Your task to perform on an android device: turn on the 24-hour format for clock Image 0: 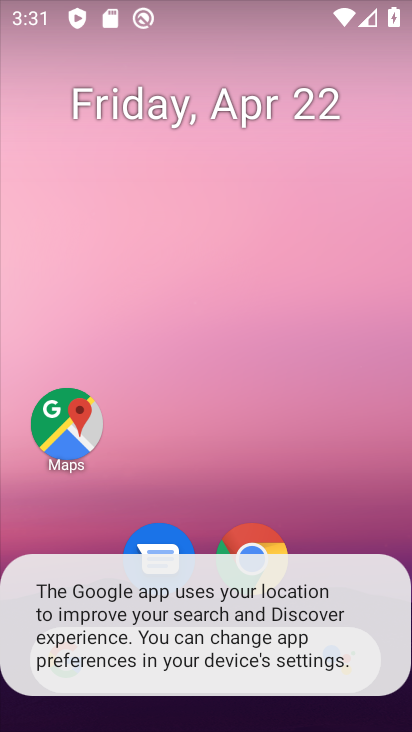
Step 0: drag from (220, 477) to (312, 39)
Your task to perform on an android device: turn on the 24-hour format for clock Image 1: 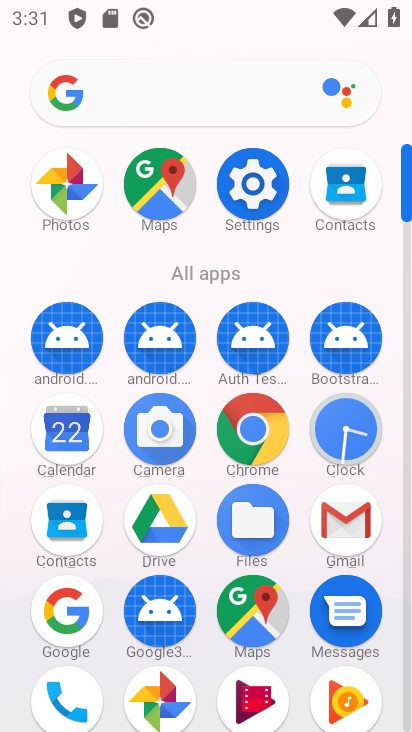
Step 1: click (360, 444)
Your task to perform on an android device: turn on the 24-hour format for clock Image 2: 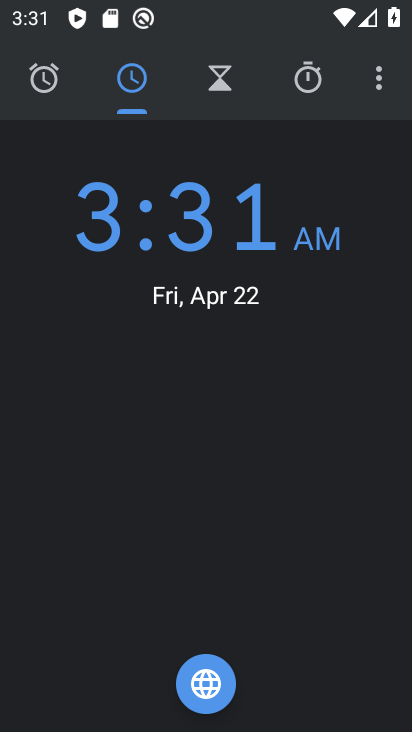
Step 2: click (378, 86)
Your task to perform on an android device: turn on the 24-hour format for clock Image 3: 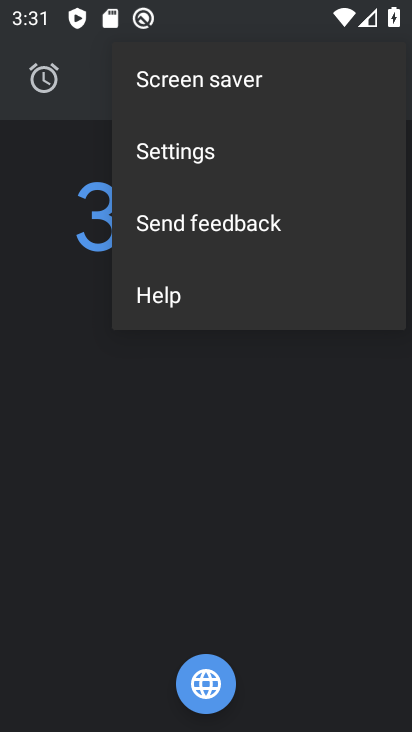
Step 3: click (274, 162)
Your task to perform on an android device: turn on the 24-hour format for clock Image 4: 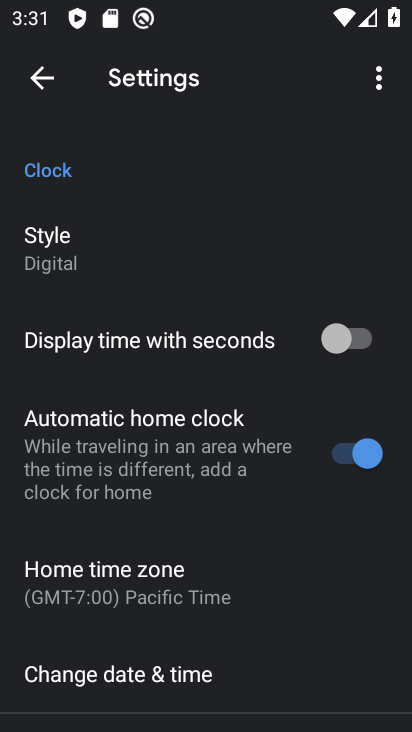
Step 4: click (191, 679)
Your task to perform on an android device: turn on the 24-hour format for clock Image 5: 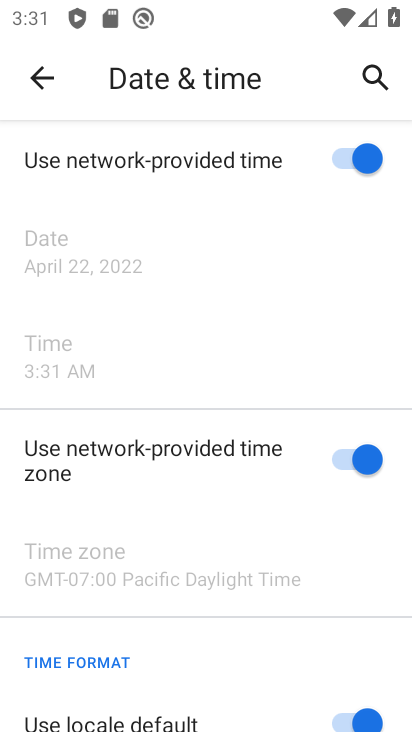
Step 5: drag from (208, 648) to (299, 226)
Your task to perform on an android device: turn on the 24-hour format for clock Image 6: 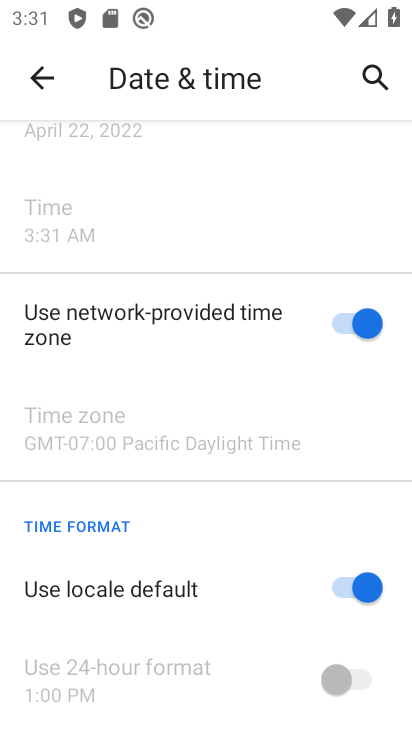
Step 6: click (340, 592)
Your task to perform on an android device: turn on the 24-hour format for clock Image 7: 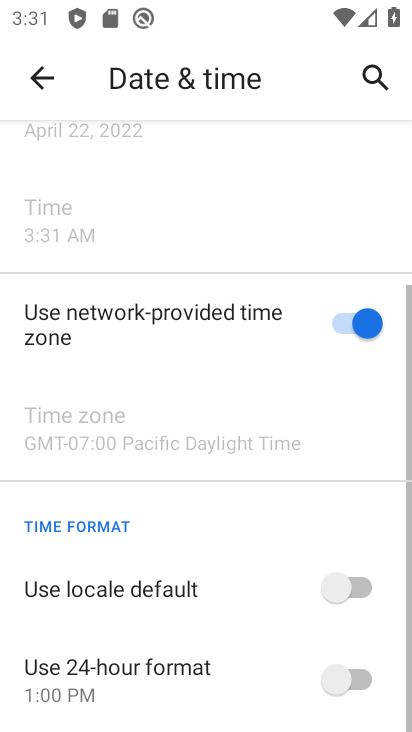
Step 7: click (368, 677)
Your task to perform on an android device: turn on the 24-hour format for clock Image 8: 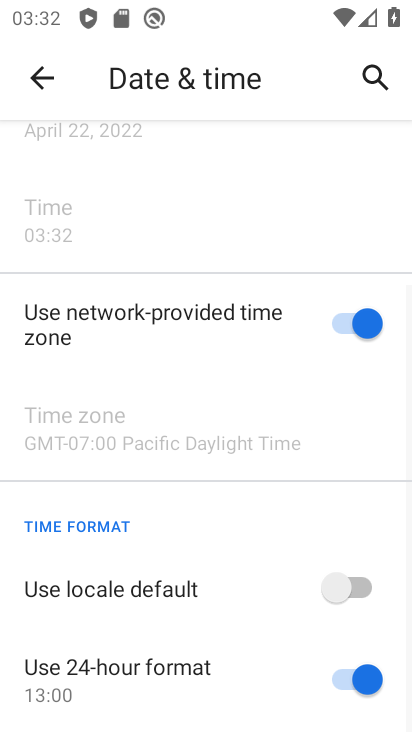
Step 8: task complete